Your task to perform on an android device: change your default location settings in chrome Image 0: 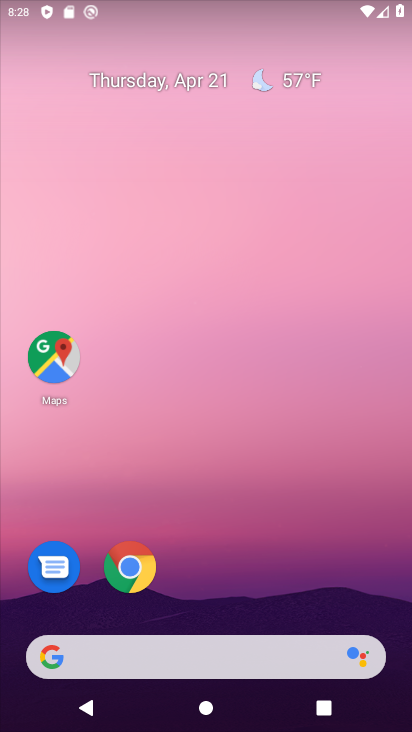
Step 0: drag from (218, 635) to (23, 588)
Your task to perform on an android device: change your default location settings in chrome Image 1: 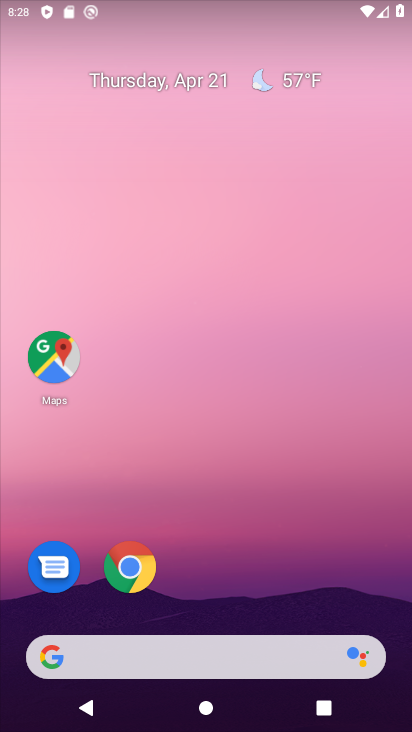
Step 1: click (147, 573)
Your task to perform on an android device: change your default location settings in chrome Image 2: 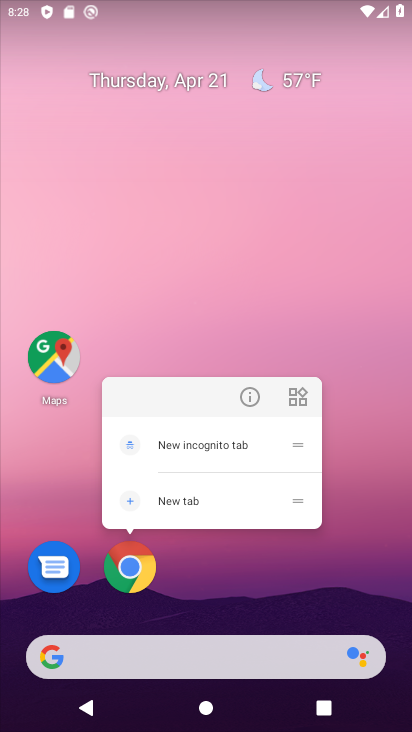
Step 2: click (108, 558)
Your task to perform on an android device: change your default location settings in chrome Image 3: 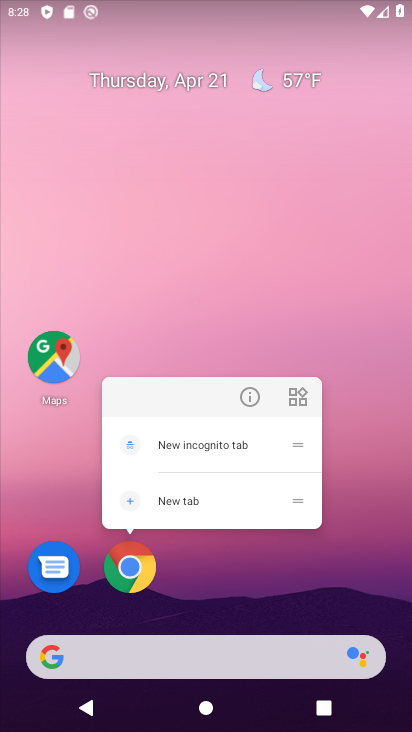
Step 3: click (131, 574)
Your task to perform on an android device: change your default location settings in chrome Image 4: 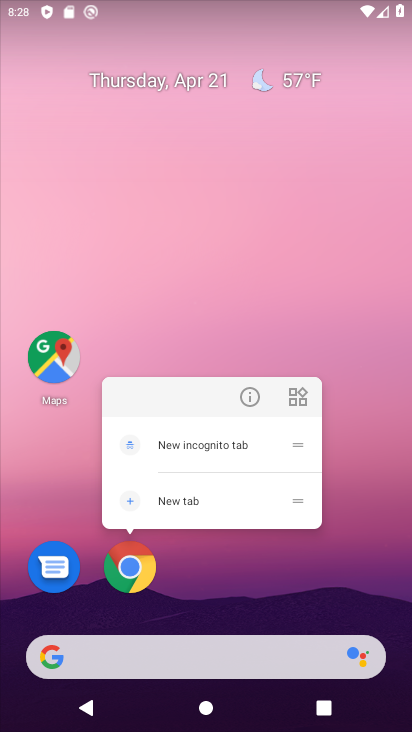
Step 4: click (138, 572)
Your task to perform on an android device: change your default location settings in chrome Image 5: 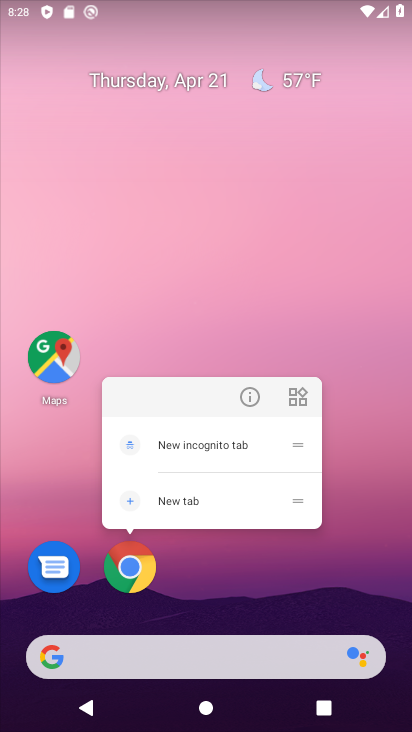
Step 5: click (136, 568)
Your task to perform on an android device: change your default location settings in chrome Image 6: 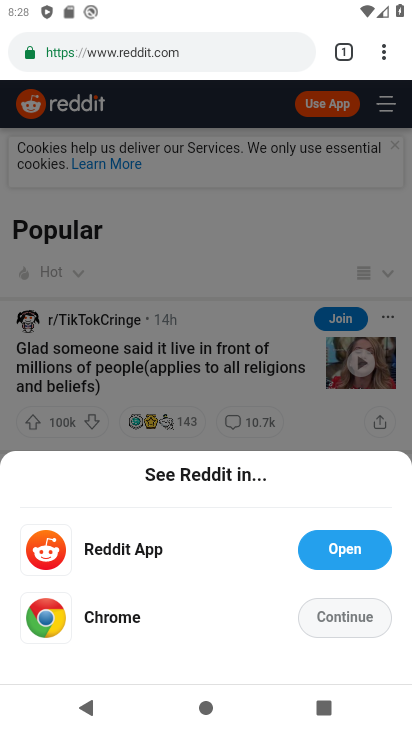
Step 6: click (343, 54)
Your task to perform on an android device: change your default location settings in chrome Image 7: 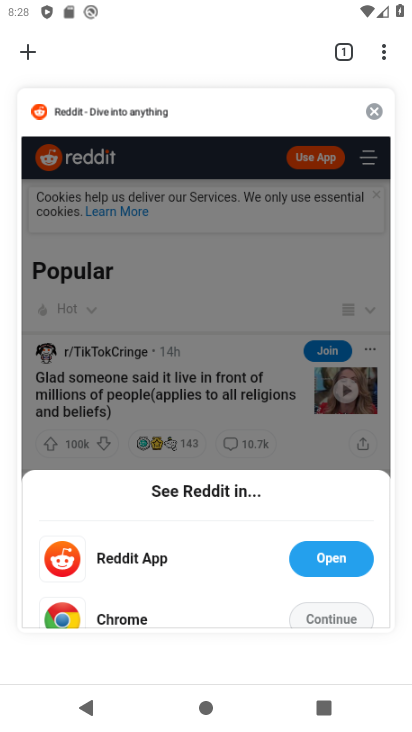
Step 7: click (14, 53)
Your task to perform on an android device: change your default location settings in chrome Image 8: 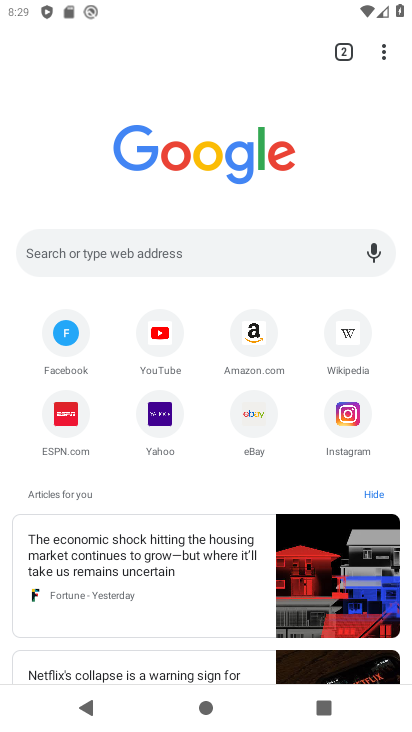
Step 8: click (388, 46)
Your task to perform on an android device: change your default location settings in chrome Image 9: 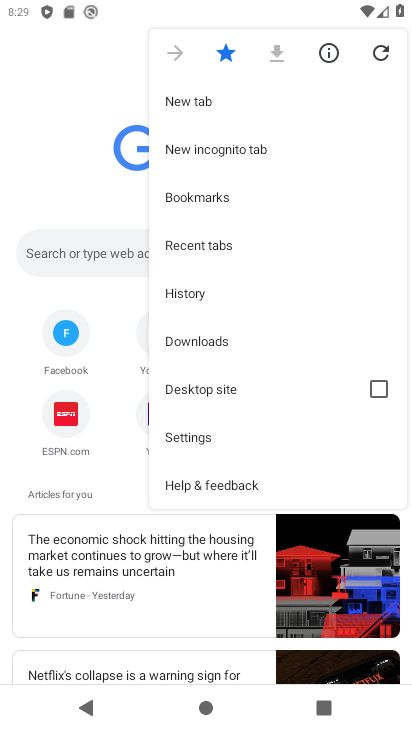
Step 9: click (185, 433)
Your task to perform on an android device: change your default location settings in chrome Image 10: 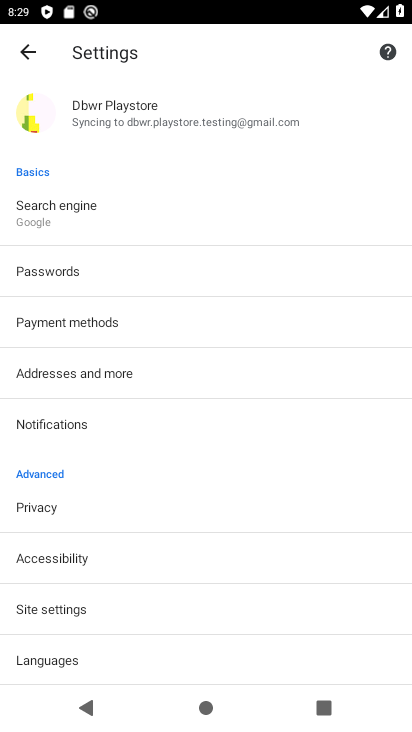
Step 10: click (36, 612)
Your task to perform on an android device: change your default location settings in chrome Image 11: 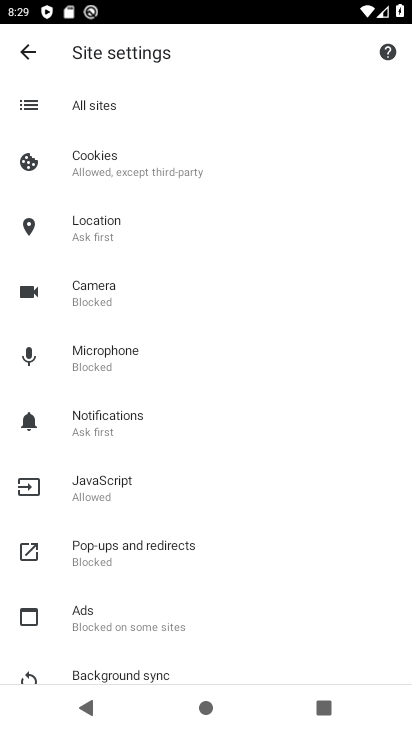
Step 11: click (70, 228)
Your task to perform on an android device: change your default location settings in chrome Image 12: 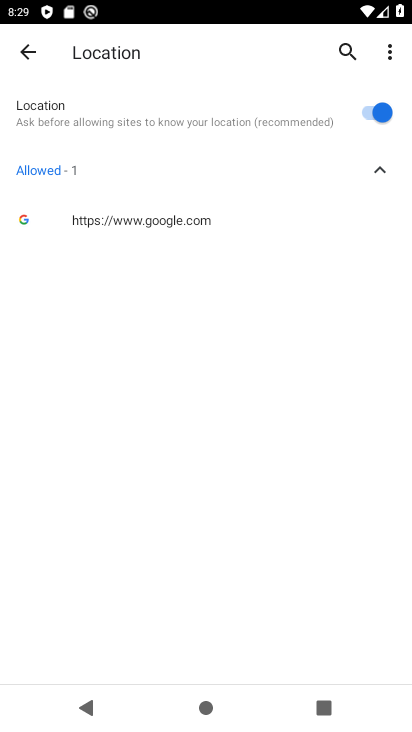
Step 12: click (385, 117)
Your task to perform on an android device: change your default location settings in chrome Image 13: 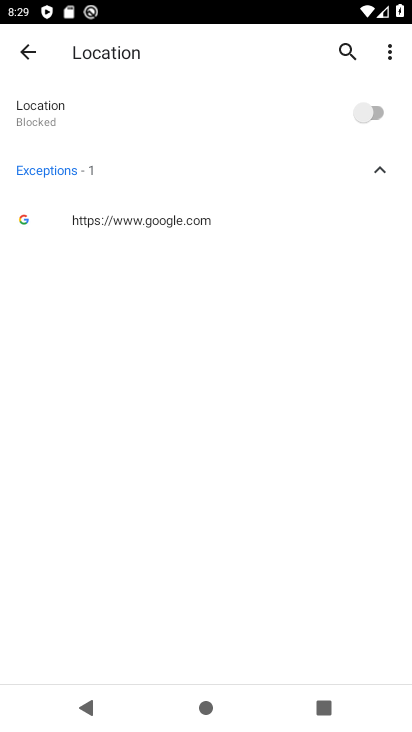
Step 13: task complete